Your task to perform on an android device: Search for pizza restaurants on Maps Image 0: 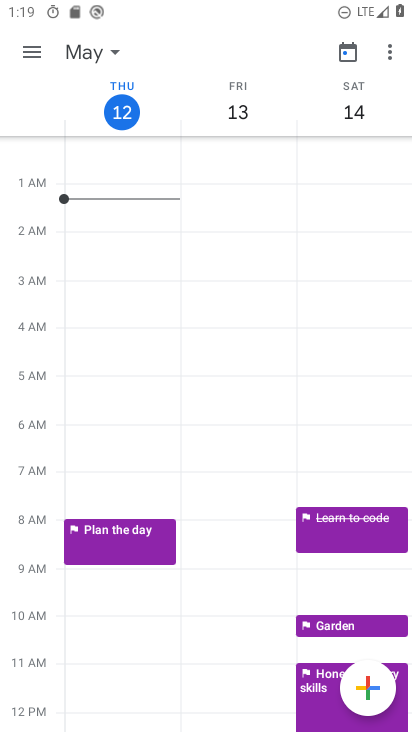
Step 0: press home button
Your task to perform on an android device: Search for pizza restaurants on Maps Image 1: 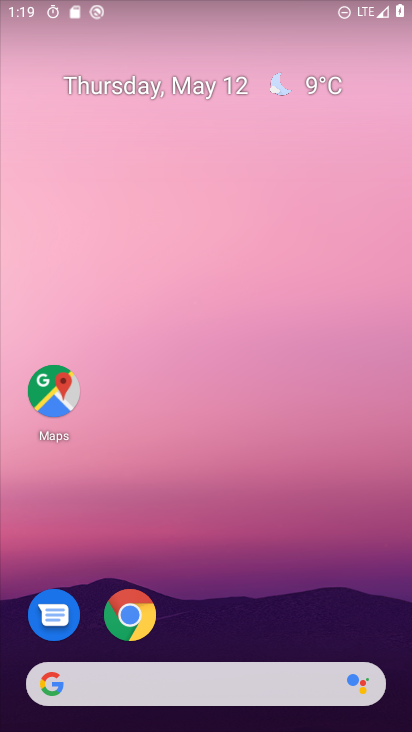
Step 1: click (44, 385)
Your task to perform on an android device: Search for pizza restaurants on Maps Image 2: 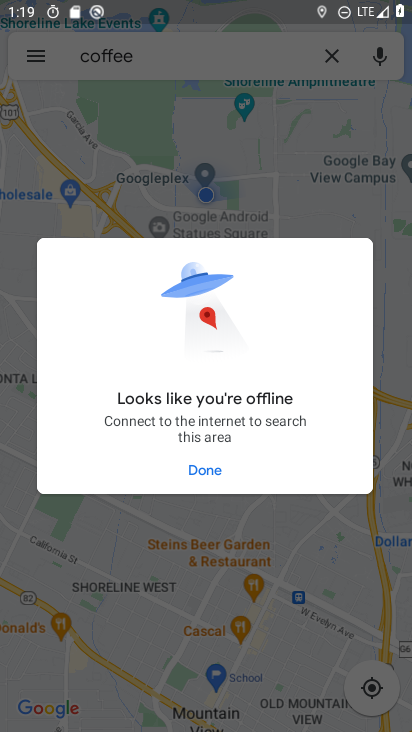
Step 2: click (205, 462)
Your task to perform on an android device: Search for pizza restaurants on Maps Image 3: 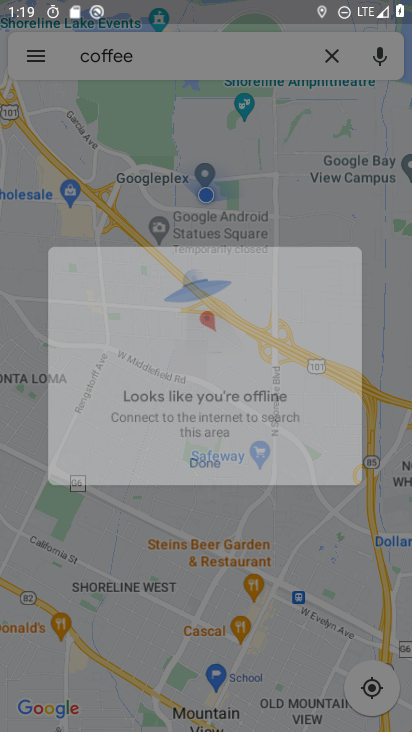
Step 3: click (205, 467)
Your task to perform on an android device: Search for pizza restaurants on Maps Image 4: 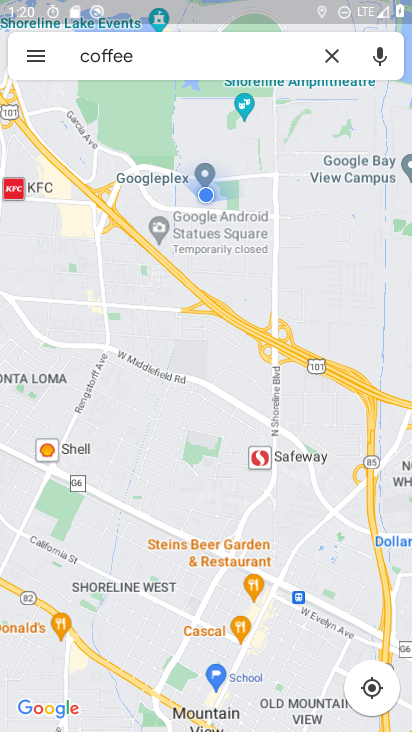
Step 4: click (194, 57)
Your task to perform on an android device: Search for pizza restaurants on Maps Image 5: 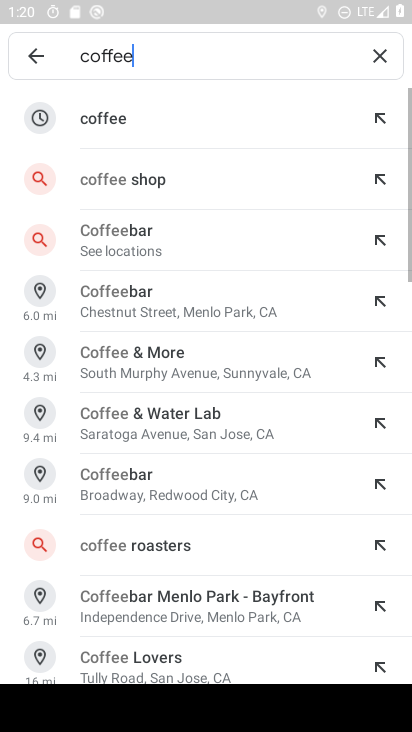
Step 5: click (380, 52)
Your task to perform on an android device: Search for pizza restaurants on Maps Image 6: 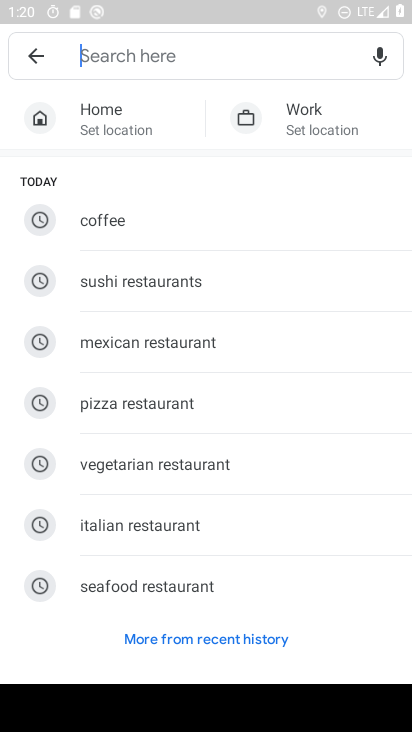
Step 6: type "pizza restaurants"
Your task to perform on an android device: Search for pizza restaurants on Maps Image 7: 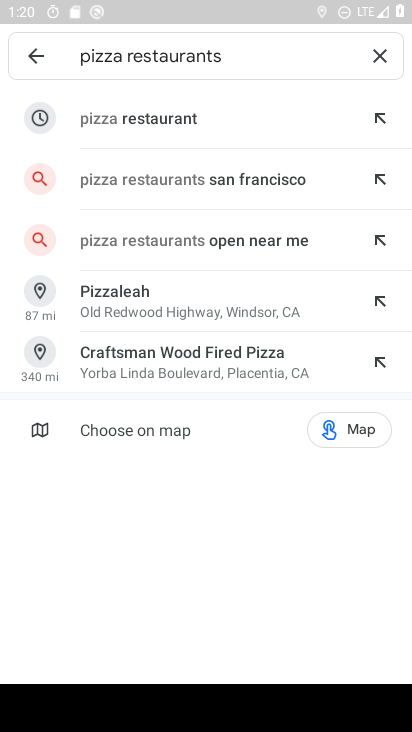
Step 7: press enter
Your task to perform on an android device: Search for pizza restaurants on Maps Image 8: 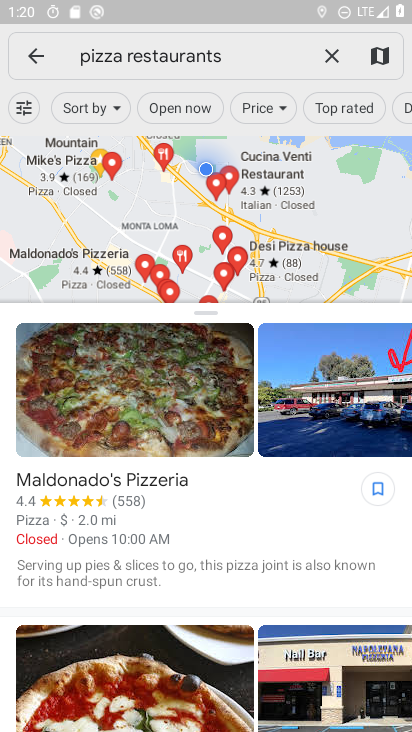
Step 8: task complete